Your task to perform on an android device: toggle airplane mode Image 0: 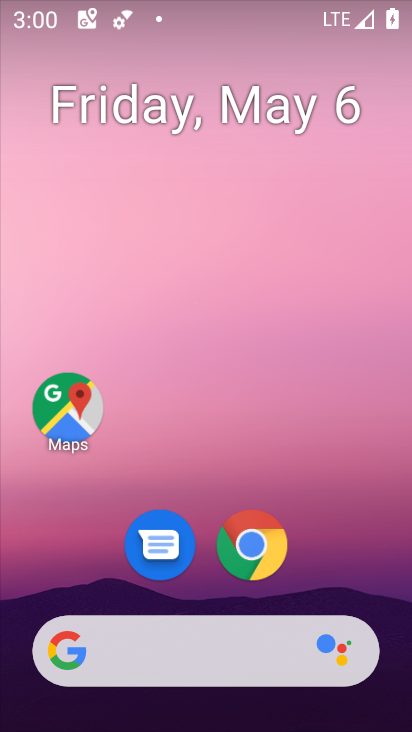
Step 0: drag from (397, 668) to (345, 235)
Your task to perform on an android device: toggle airplane mode Image 1: 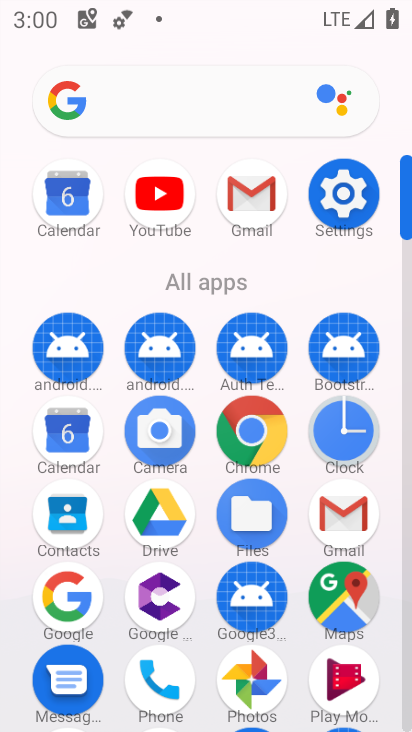
Step 1: click (345, 201)
Your task to perform on an android device: toggle airplane mode Image 2: 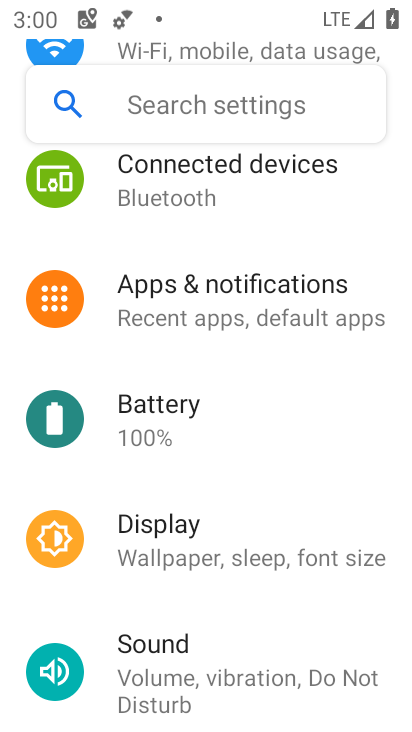
Step 2: click (161, 51)
Your task to perform on an android device: toggle airplane mode Image 3: 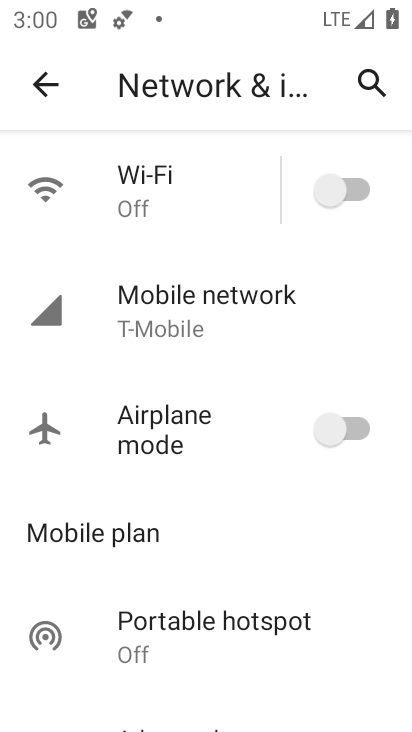
Step 3: click (364, 427)
Your task to perform on an android device: toggle airplane mode Image 4: 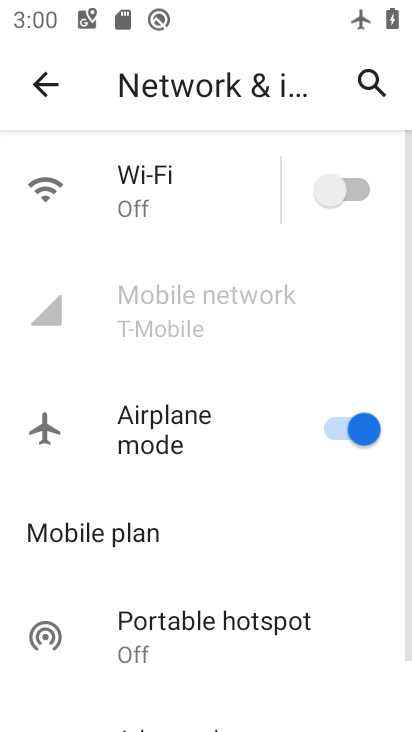
Step 4: task complete